Your task to perform on an android device: Go to Reddit.com Image 0: 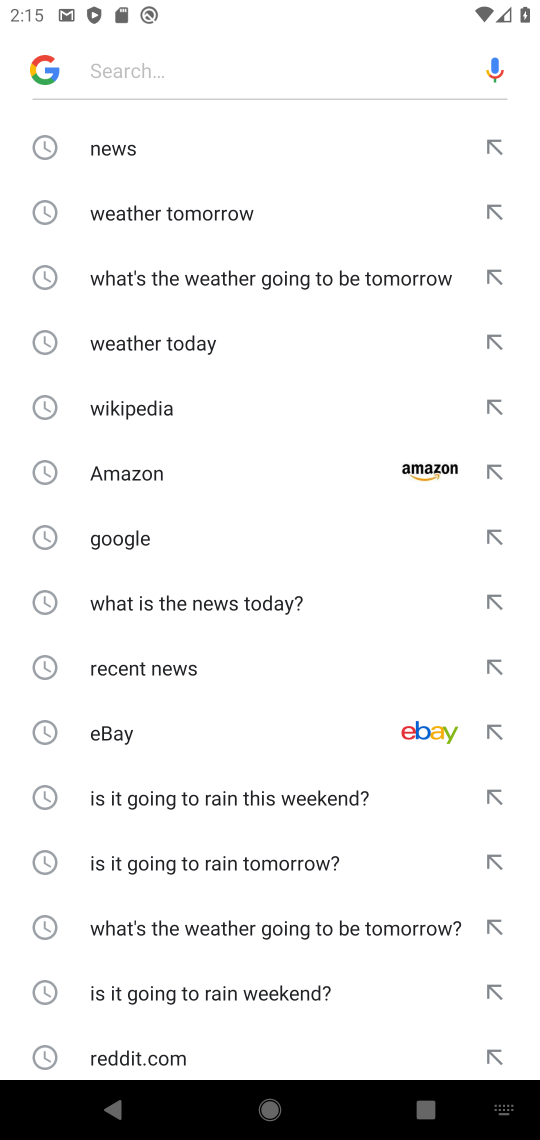
Step 0: click (191, 57)
Your task to perform on an android device: Go to Reddit.com Image 1: 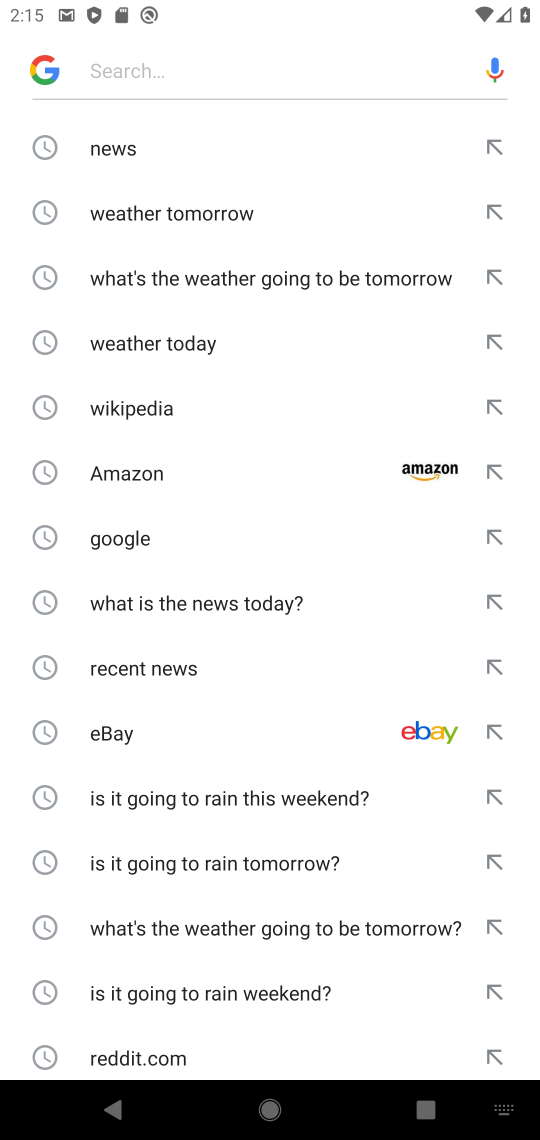
Step 1: type " Reddit.com "
Your task to perform on an android device: Go to Reddit.com Image 2: 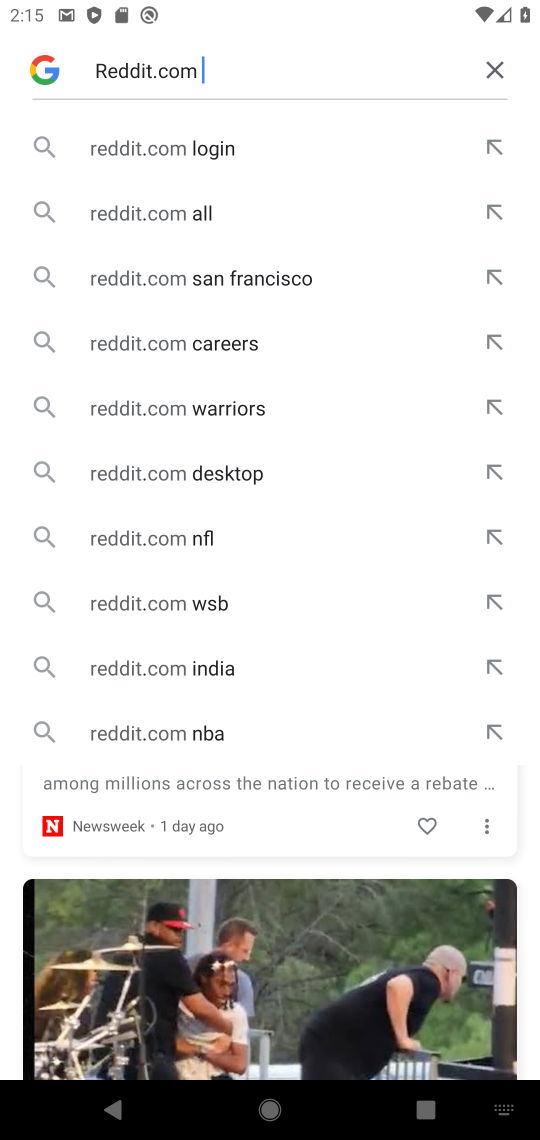
Step 2: click (164, 72)
Your task to perform on an android device: Go to Reddit.com Image 3: 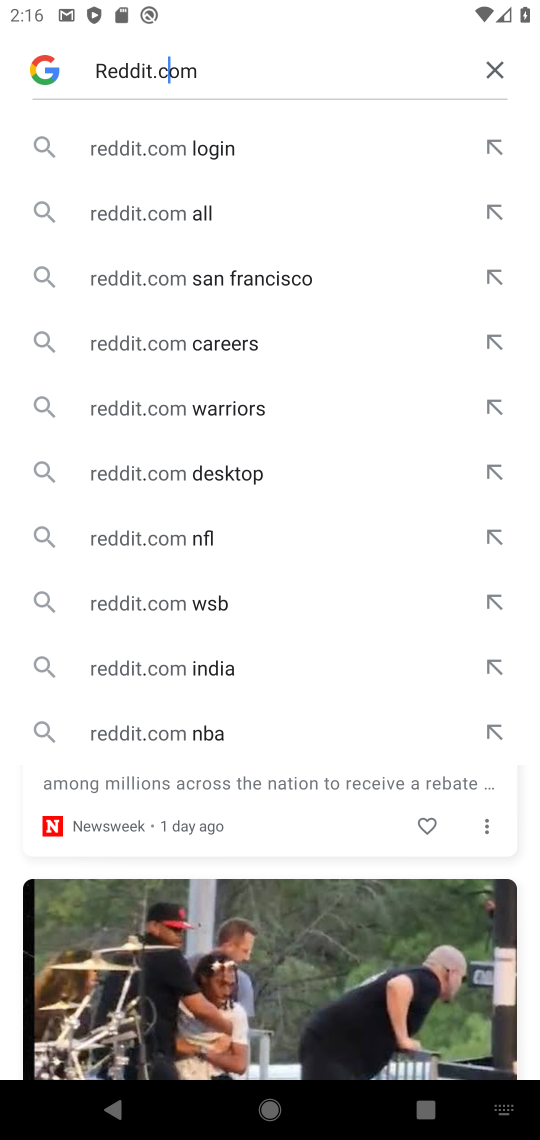
Step 3: click (165, 209)
Your task to perform on an android device: Go to Reddit.com Image 4: 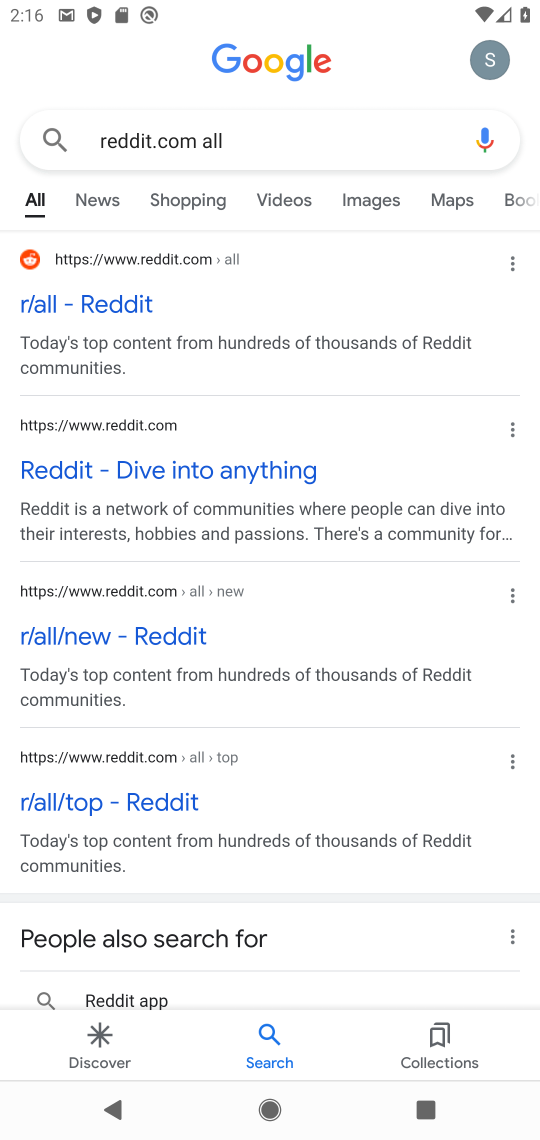
Step 4: click (96, 300)
Your task to perform on an android device: Go to Reddit.com Image 5: 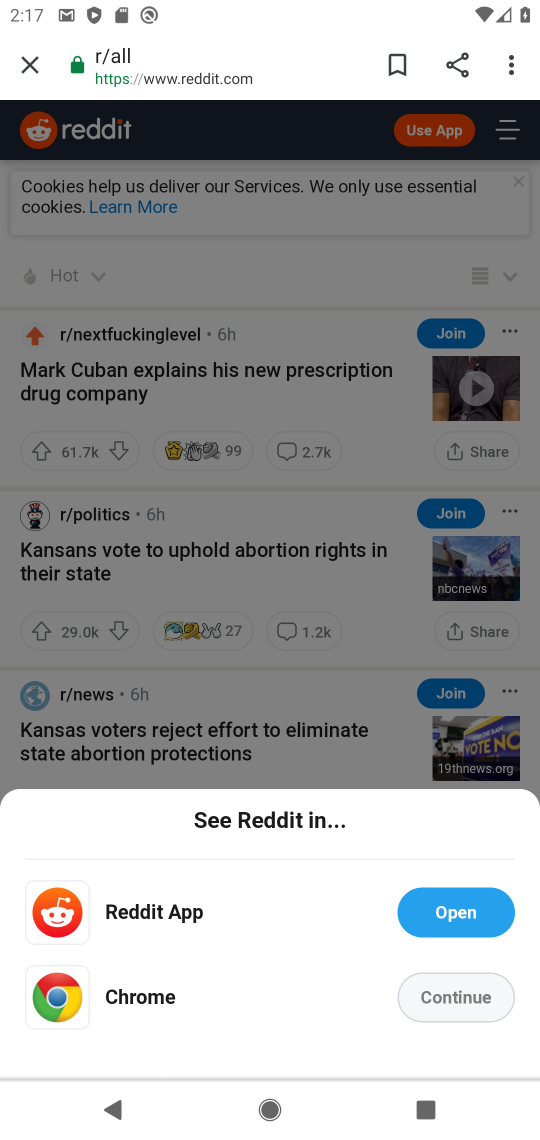
Step 5: task complete